Your task to perform on an android device: snooze an email in the gmail app Image 0: 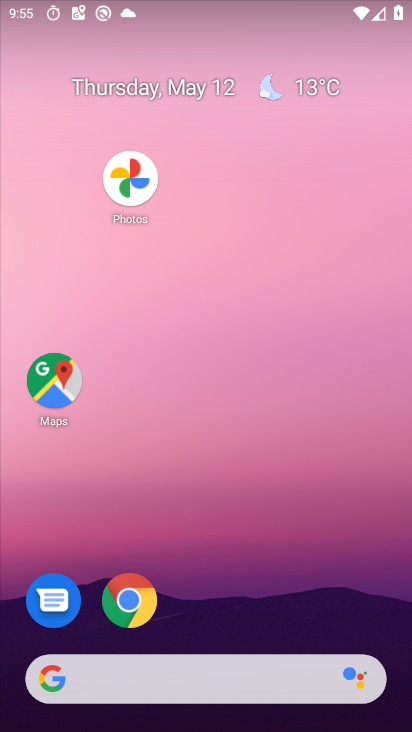
Step 0: drag from (305, 589) to (135, 23)
Your task to perform on an android device: snooze an email in the gmail app Image 1: 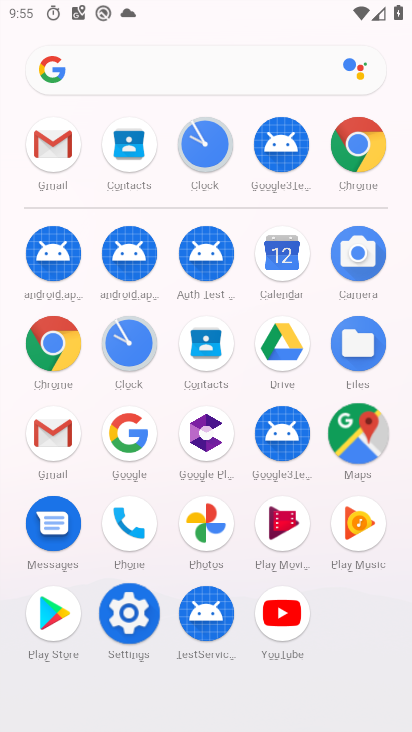
Step 1: click (52, 439)
Your task to perform on an android device: snooze an email in the gmail app Image 2: 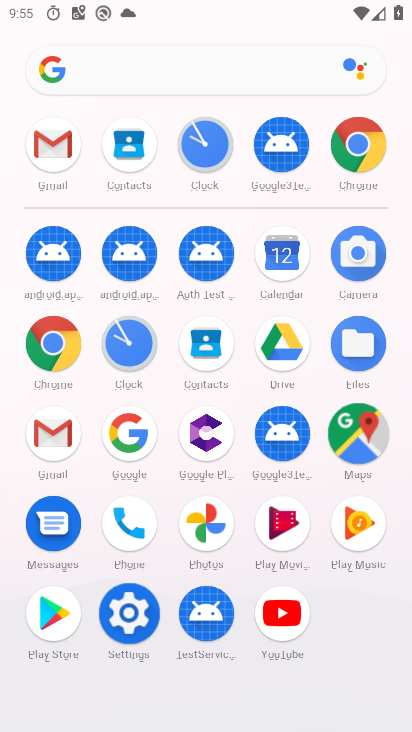
Step 2: click (51, 440)
Your task to perform on an android device: snooze an email in the gmail app Image 3: 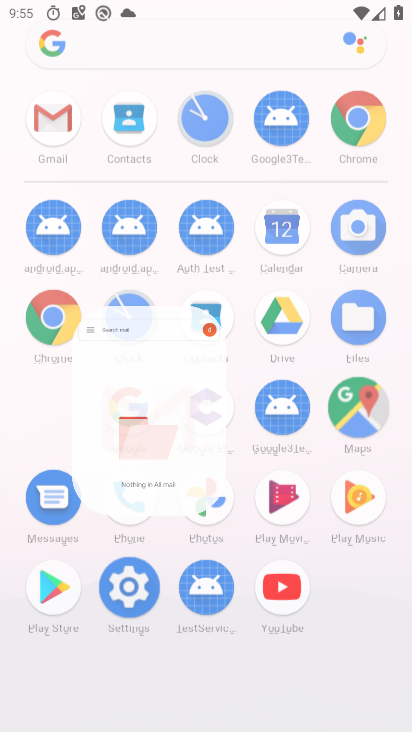
Step 3: click (52, 441)
Your task to perform on an android device: snooze an email in the gmail app Image 4: 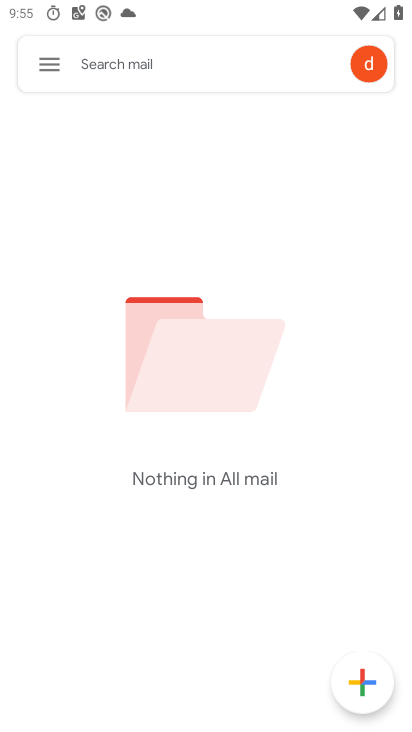
Step 4: click (42, 61)
Your task to perform on an android device: snooze an email in the gmail app Image 5: 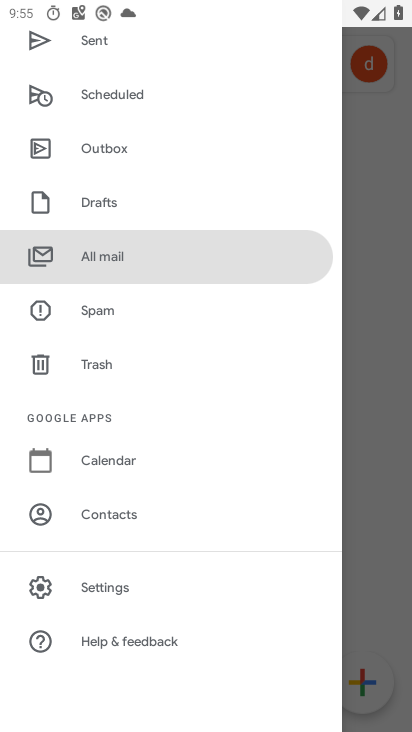
Step 5: drag from (121, 144) to (225, 625)
Your task to perform on an android device: snooze an email in the gmail app Image 6: 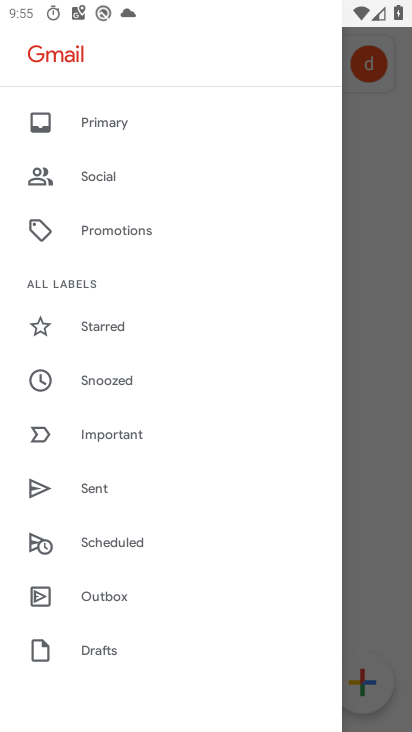
Step 6: click (104, 376)
Your task to perform on an android device: snooze an email in the gmail app Image 7: 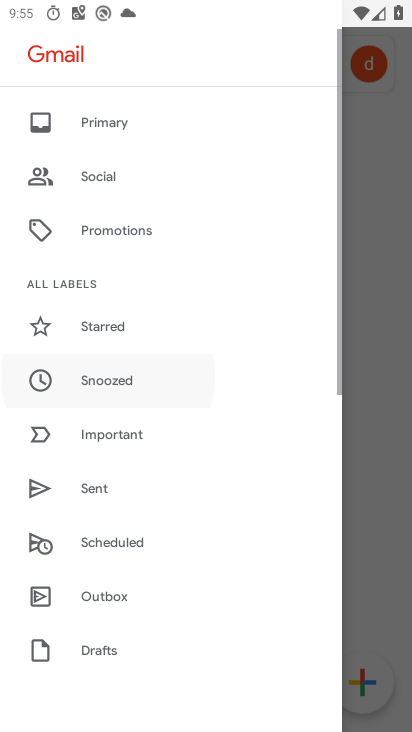
Step 7: click (111, 383)
Your task to perform on an android device: snooze an email in the gmail app Image 8: 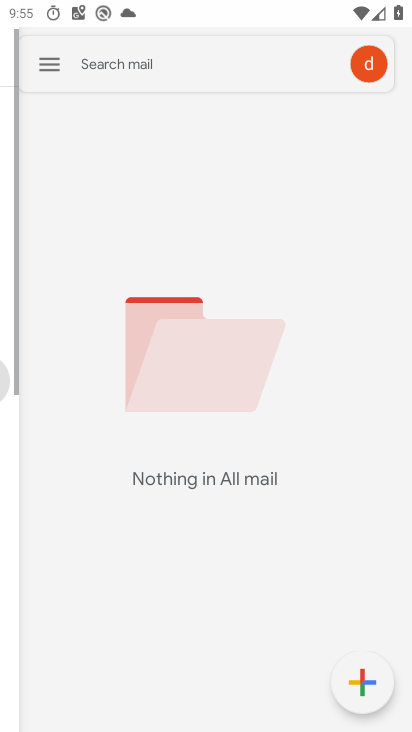
Step 8: click (114, 389)
Your task to perform on an android device: snooze an email in the gmail app Image 9: 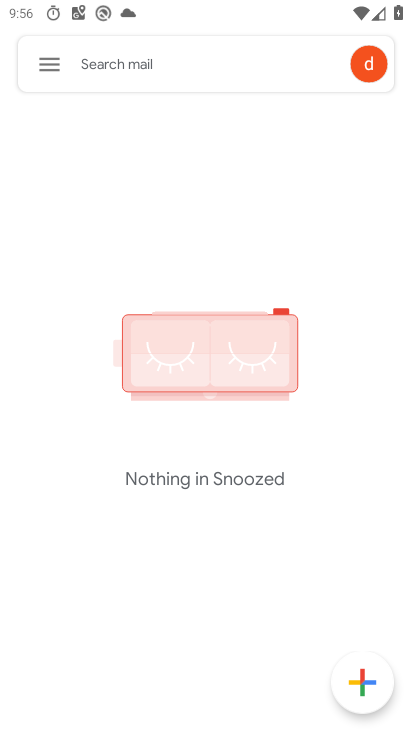
Step 9: task complete